Your task to perform on an android device: open device folders in google photos Image 0: 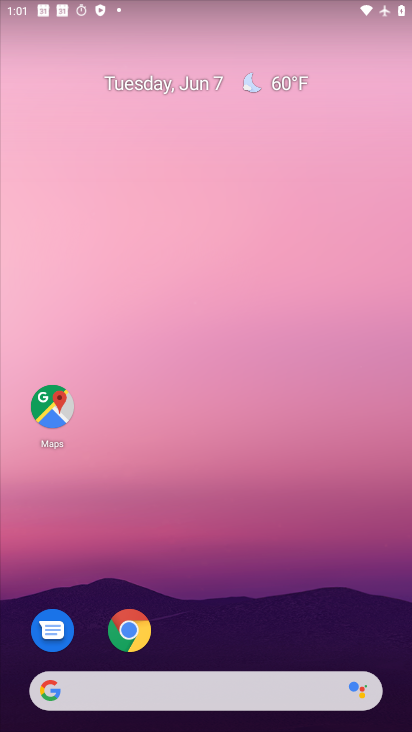
Step 0: drag from (352, 620) to (271, 88)
Your task to perform on an android device: open device folders in google photos Image 1: 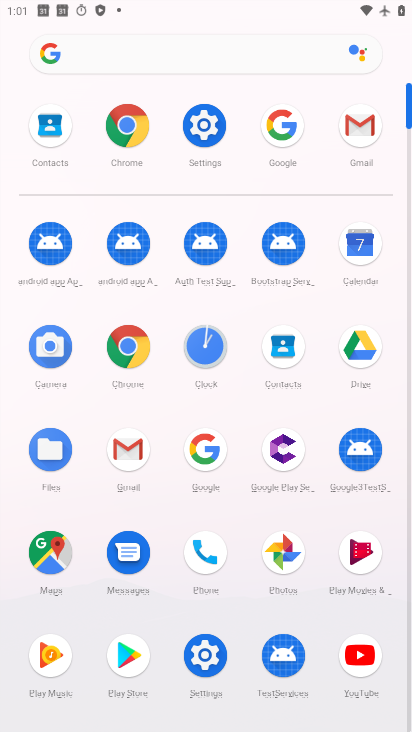
Step 1: click (290, 567)
Your task to perform on an android device: open device folders in google photos Image 2: 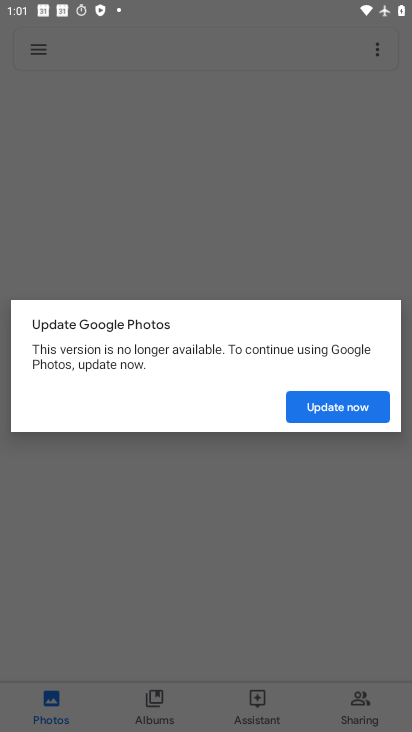
Step 2: click (368, 404)
Your task to perform on an android device: open device folders in google photos Image 3: 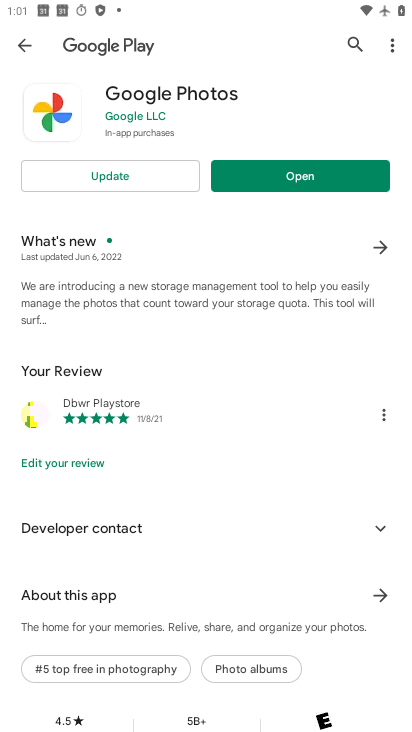
Step 3: click (152, 183)
Your task to perform on an android device: open device folders in google photos Image 4: 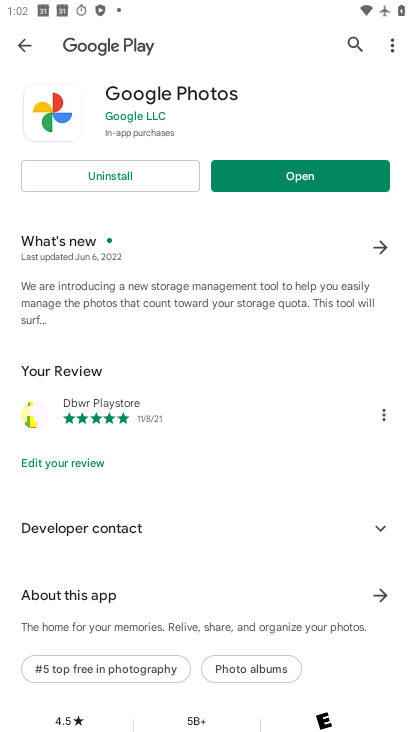
Step 4: click (300, 182)
Your task to perform on an android device: open device folders in google photos Image 5: 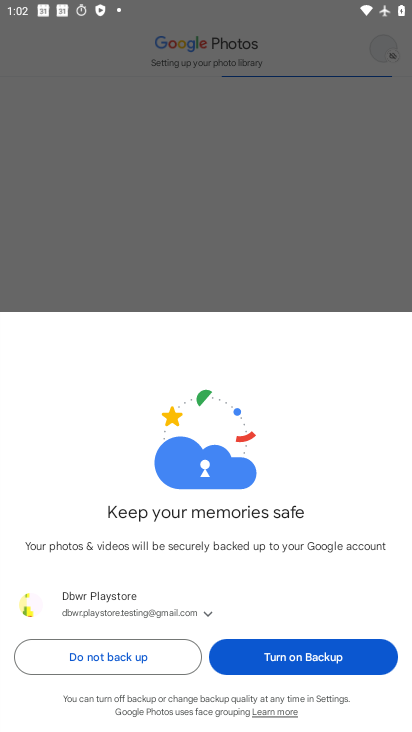
Step 5: click (251, 642)
Your task to perform on an android device: open device folders in google photos Image 6: 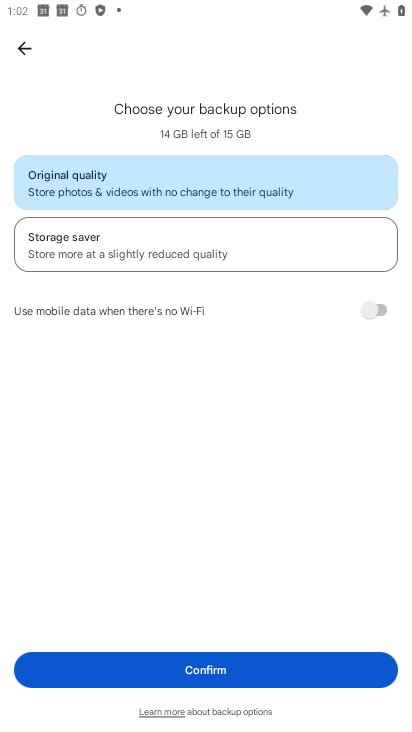
Step 6: click (242, 659)
Your task to perform on an android device: open device folders in google photos Image 7: 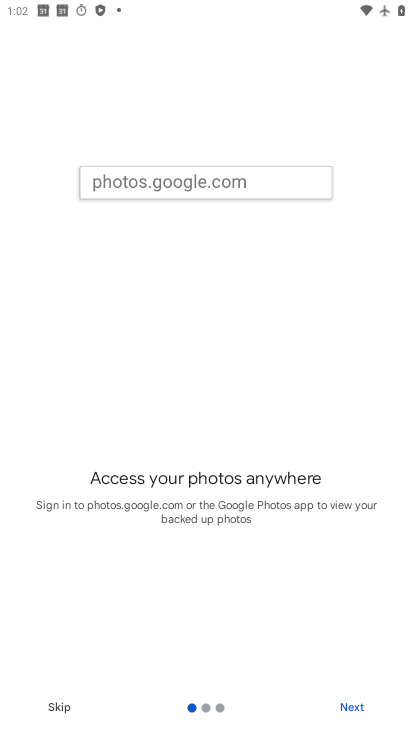
Step 7: click (353, 708)
Your task to perform on an android device: open device folders in google photos Image 8: 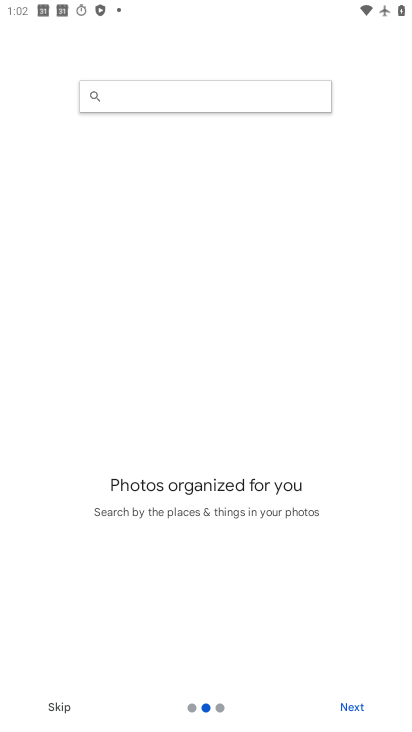
Step 8: click (353, 708)
Your task to perform on an android device: open device folders in google photos Image 9: 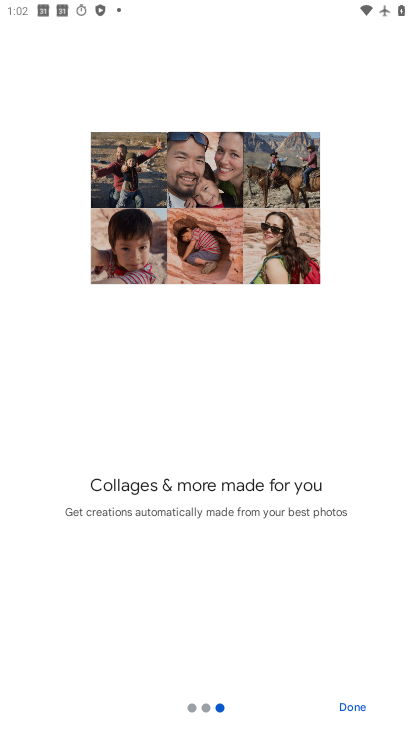
Step 9: click (353, 708)
Your task to perform on an android device: open device folders in google photos Image 10: 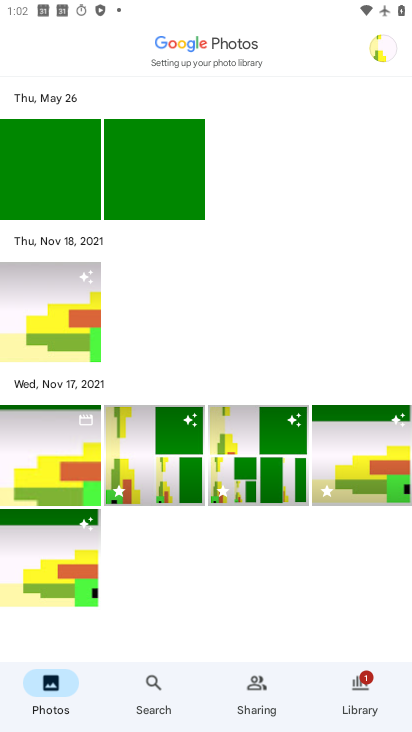
Step 10: task complete